Your task to perform on an android device: Go to display settings Image 0: 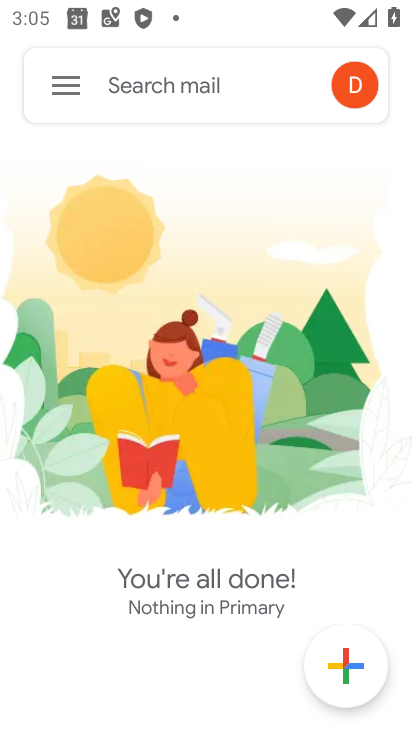
Step 0: press back button
Your task to perform on an android device: Go to display settings Image 1: 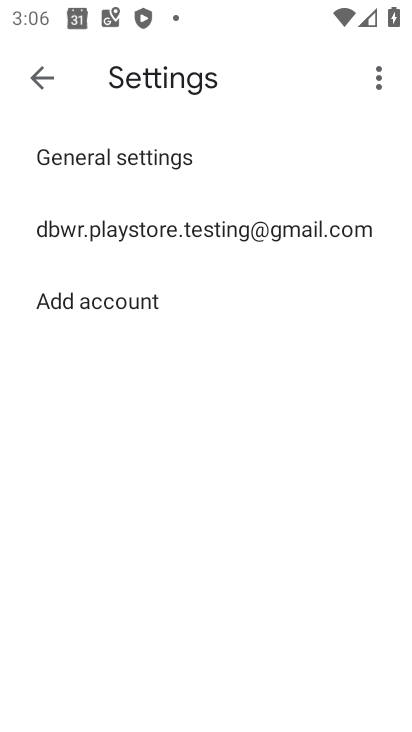
Step 1: press back button
Your task to perform on an android device: Go to display settings Image 2: 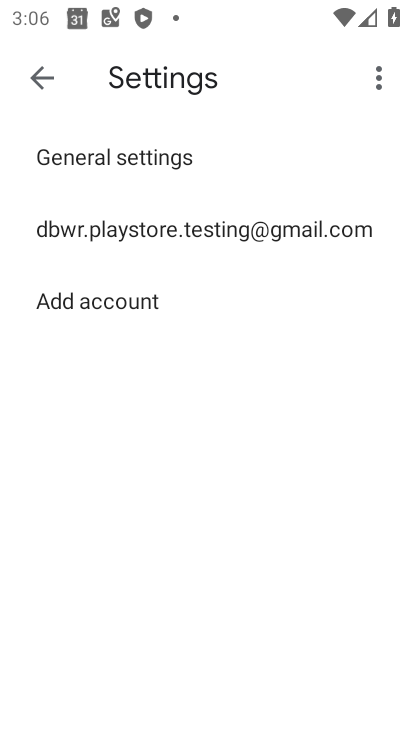
Step 2: press back button
Your task to perform on an android device: Go to display settings Image 3: 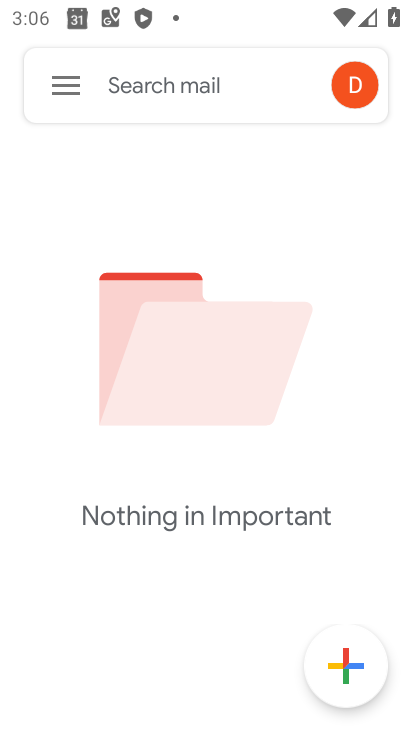
Step 3: press back button
Your task to perform on an android device: Go to display settings Image 4: 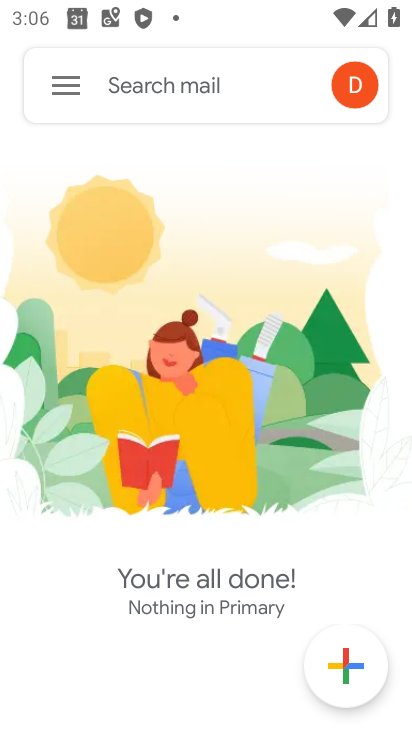
Step 4: press back button
Your task to perform on an android device: Go to display settings Image 5: 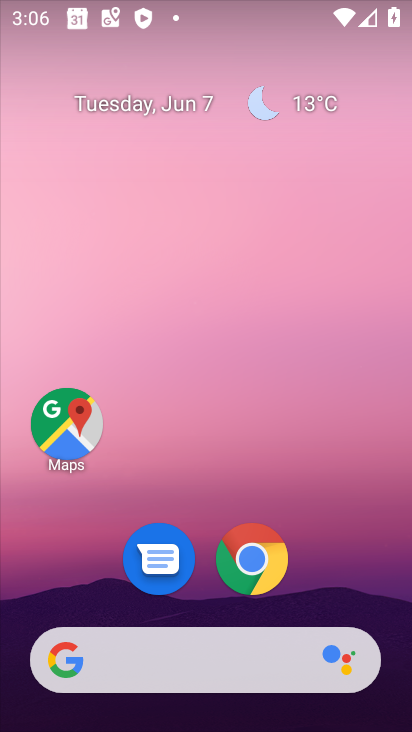
Step 5: drag from (323, 546) to (308, 19)
Your task to perform on an android device: Go to display settings Image 6: 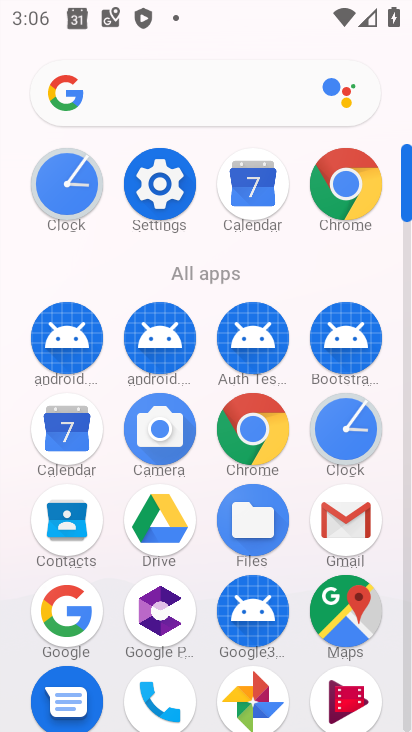
Step 6: click (161, 183)
Your task to perform on an android device: Go to display settings Image 7: 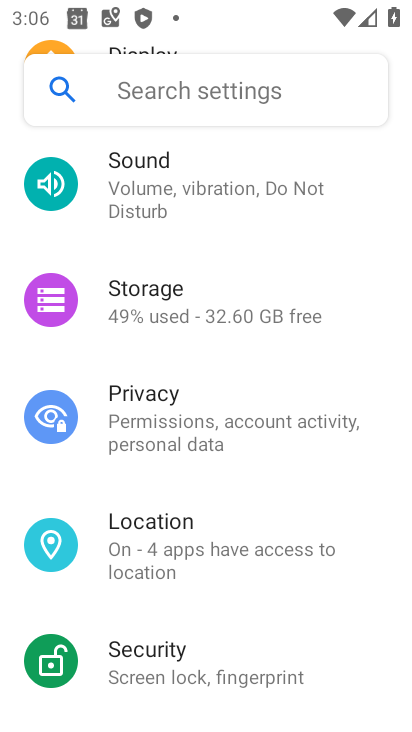
Step 7: drag from (200, 470) to (121, 648)
Your task to perform on an android device: Go to display settings Image 8: 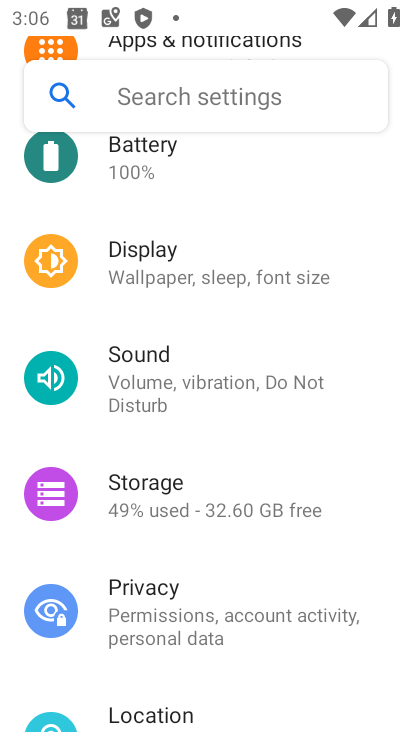
Step 8: click (168, 266)
Your task to perform on an android device: Go to display settings Image 9: 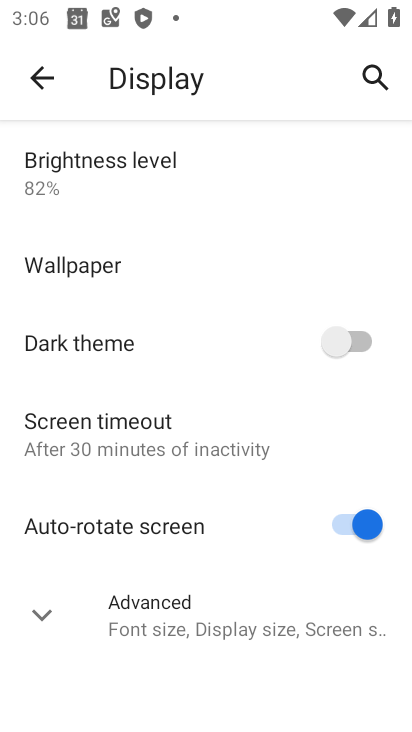
Step 9: task complete